Your task to perform on an android device: check out phone information Image 0: 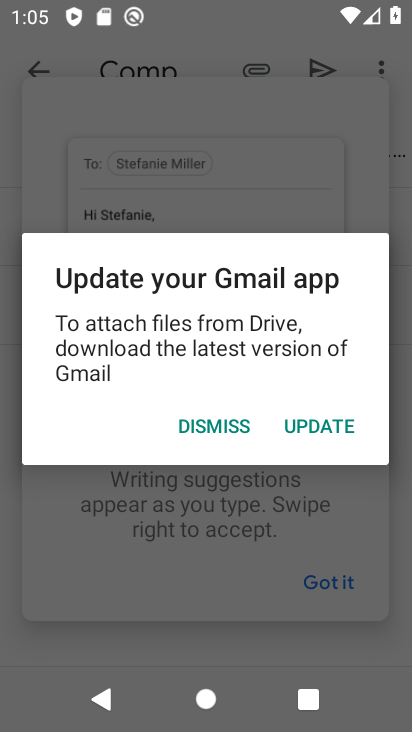
Step 0: press home button
Your task to perform on an android device: check out phone information Image 1: 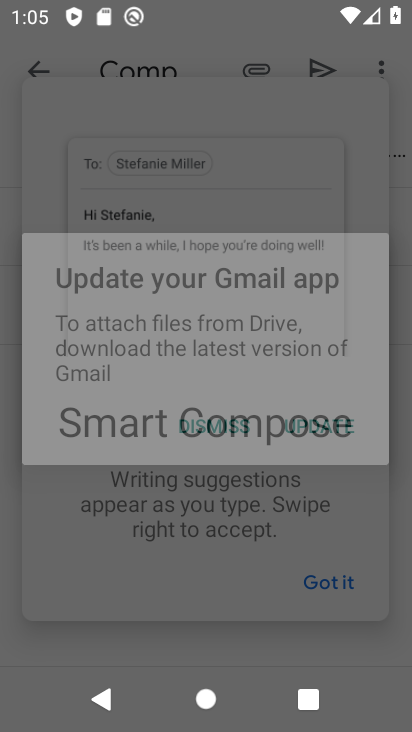
Step 1: press home button
Your task to perform on an android device: check out phone information Image 2: 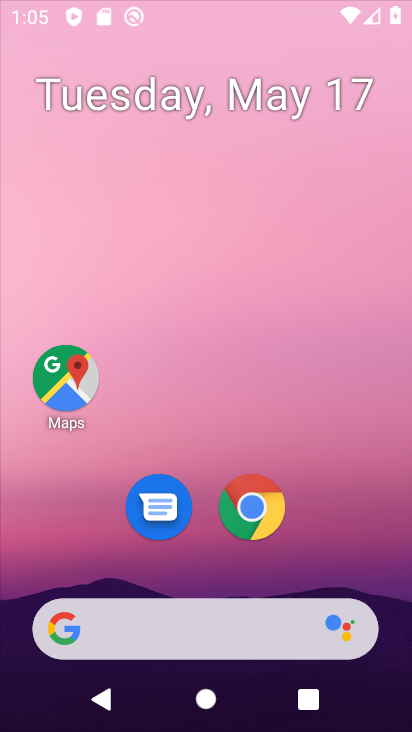
Step 2: press home button
Your task to perform on an android device: check out phone information Image 3: 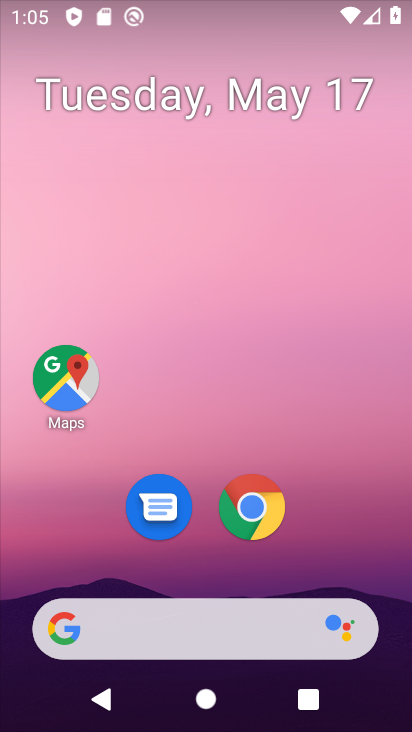
Step 3: drag from (275, 581) to (338, 220)
Your task to perform on an android device: check out phone information Image 4: 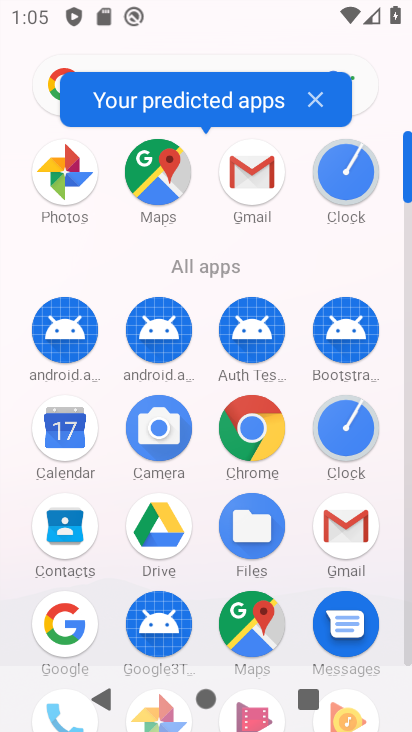
Step 4: drag from (228, 665) to (265, 278)
Your task to perform on an android device: check out phone information Image 5: 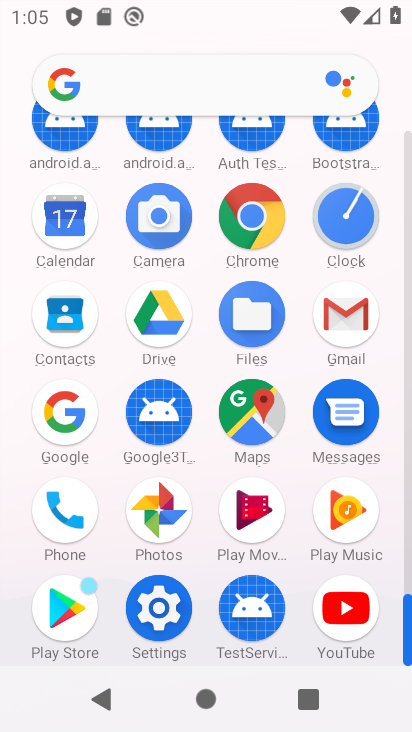
Step 5: click (150, 614)
Your task to perform on an android device: check out phone information Image 6: 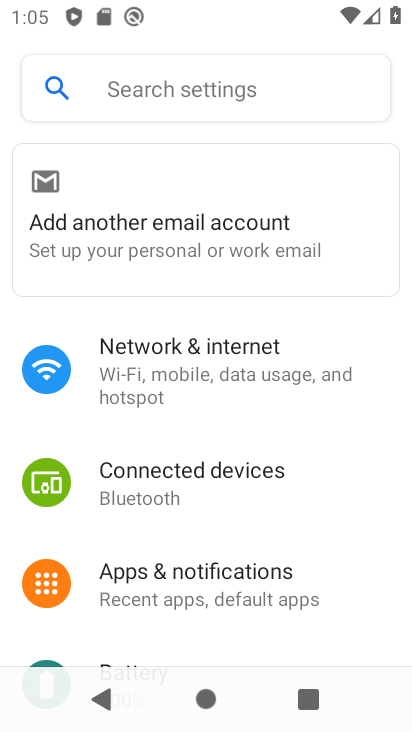
Step 6: drag from (215, 566) to (299, 100)
Your task to perform on an android device: check out phone information Image 7: 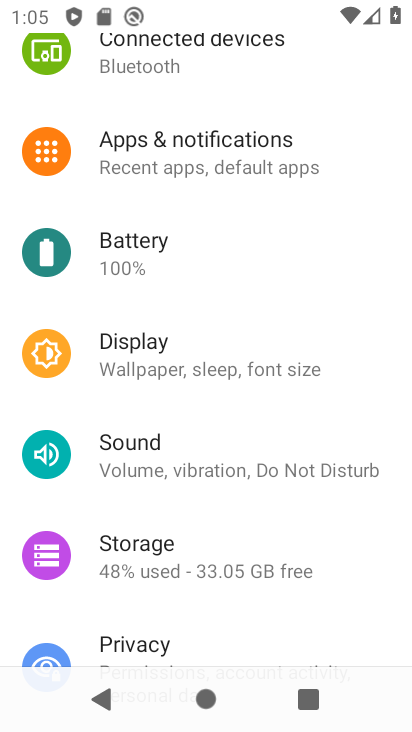
Step 7: drag from (189, 628) to (314, 163)
Your task to perform on an android device: check out phone information Image 8: 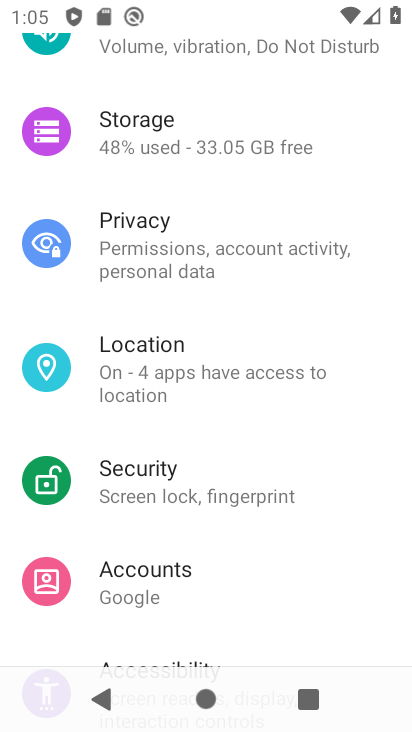
Step 8: drag from (161, 623) to (334, 135)
Your task to perform on an android device: check out phone information Image 9: 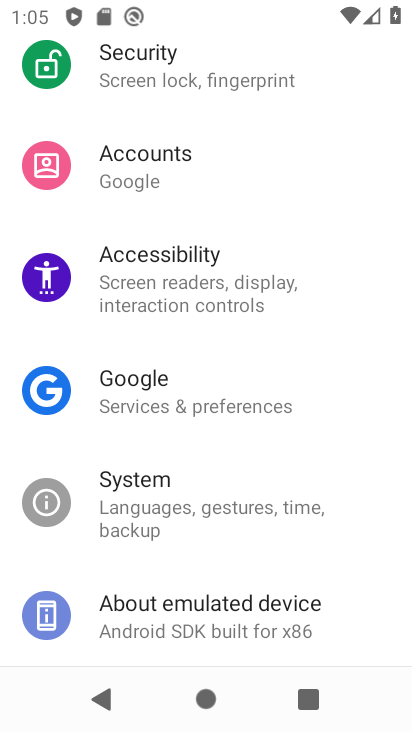
Step 9: click (174, 629)
Your task to perform on an android device: check out phone information Image 10: 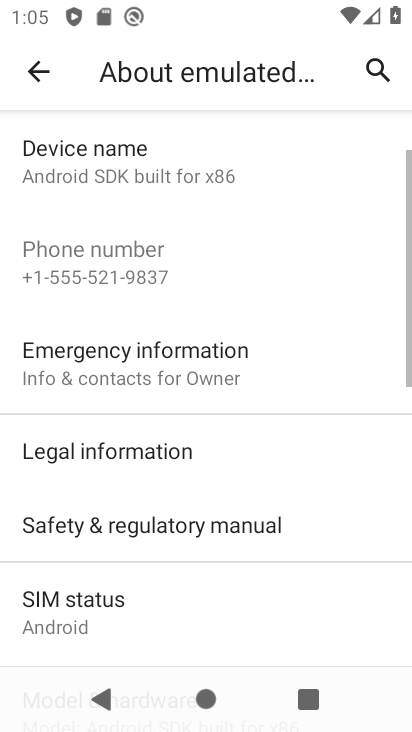
Step 10: task complete